Your task to perform on an android device: check data usage Image 0: 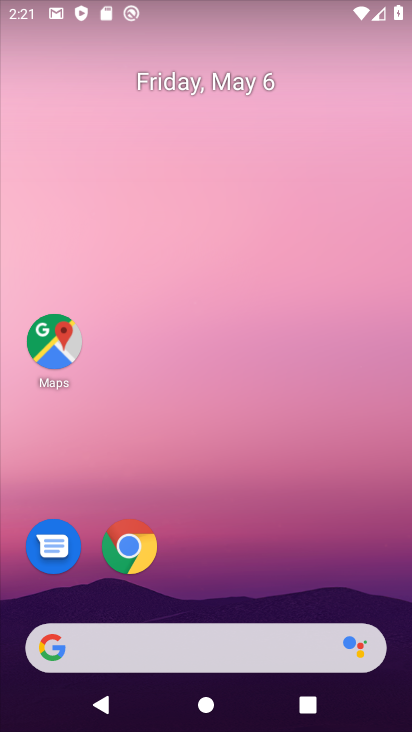
Step 0: drag from (188, 594) to (228, 120)
Your task to perform on an android device: check data usage Image 1: 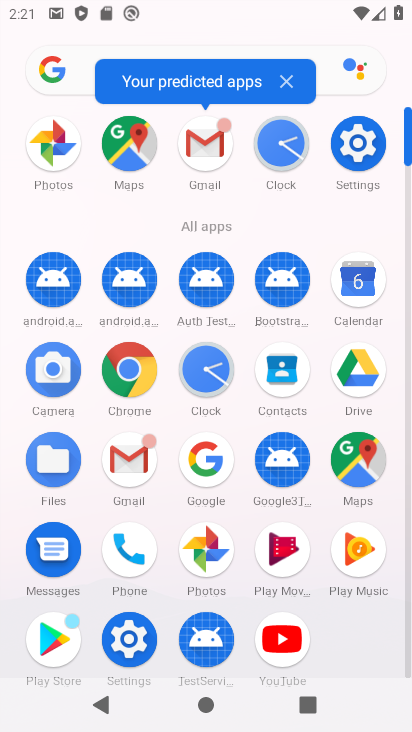
Step 1: click (361, 143)
Your task to perform on an android device: check data usage Image 2: 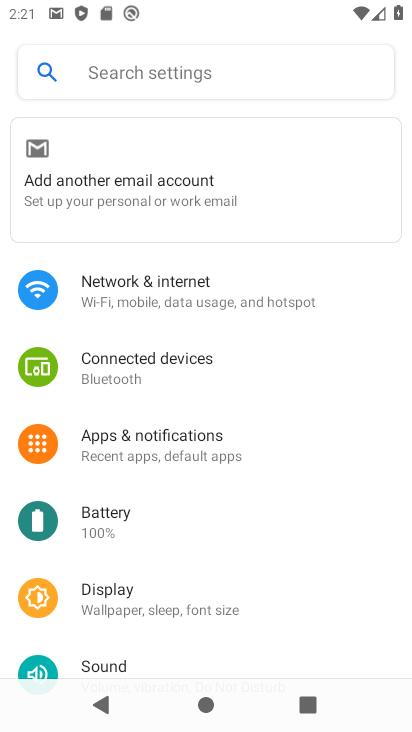
Step 2: click (179, 288)
Your task to perform on an android device: check data usage Image 3: 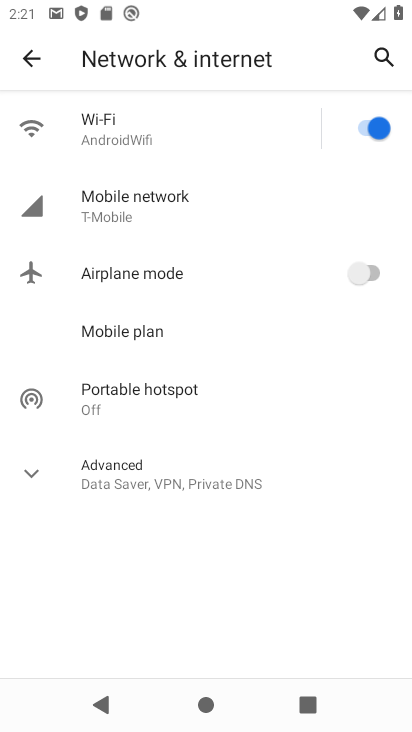
Step 3: click (122, 222)
Your task to perform on an android device: check data usage Image 4: 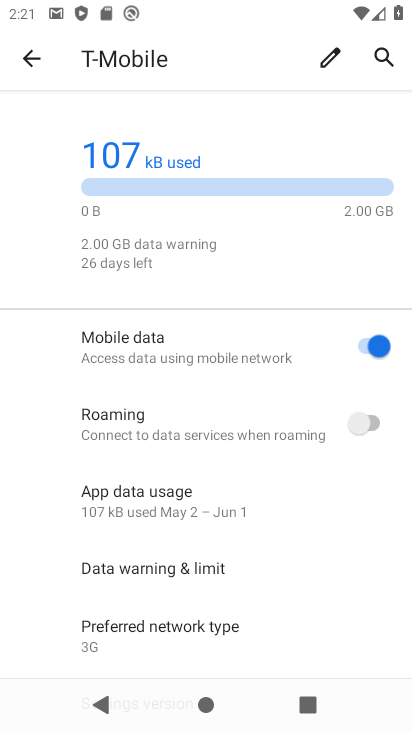
Step 4: click (157, 514)
Your task to perform on an android device: check data usage Image 5: 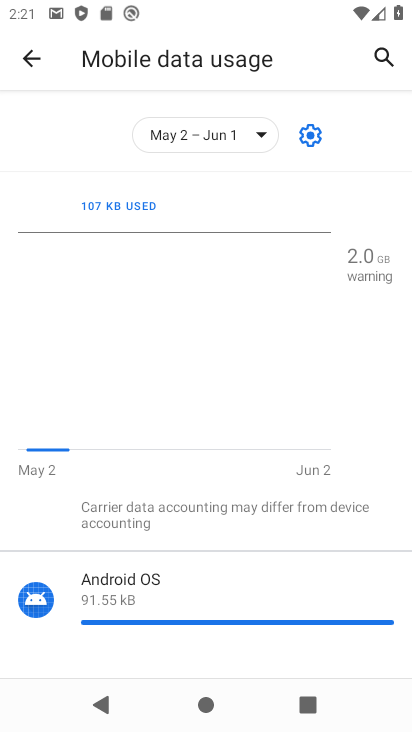
Step 5: task complete